Your task to perform on an android device: allow notifications from all sites in the chrome app Image 0: 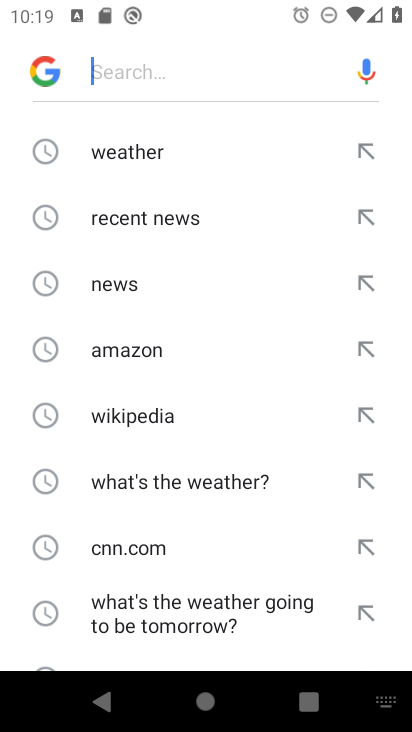
Step 0: press home button
Your task to perform on an android device: allow notifications from all sites in the chrome app Image 1: 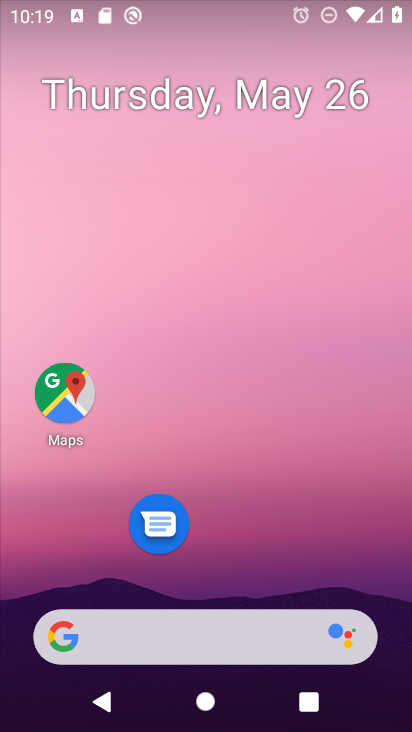
Step 1: drag from (266, 519) to (263, 53)
Your task to perform on an android device: allow notifications from all sites in the chrome app Image 2: 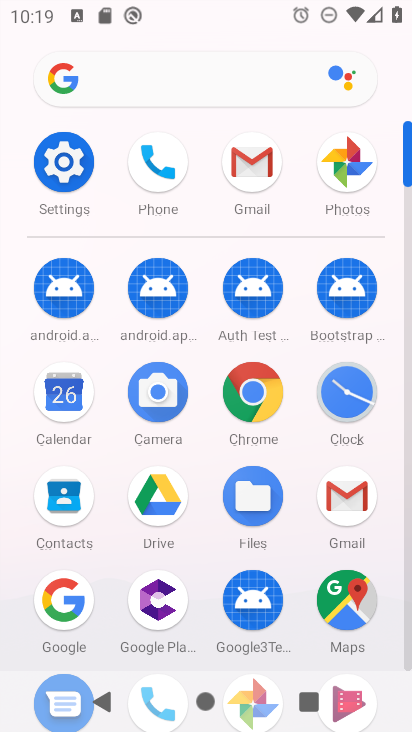
Step 2: click (249, 389)
Your task to perform on an android device: allow notifications from all sites in the chrome app Image 3: 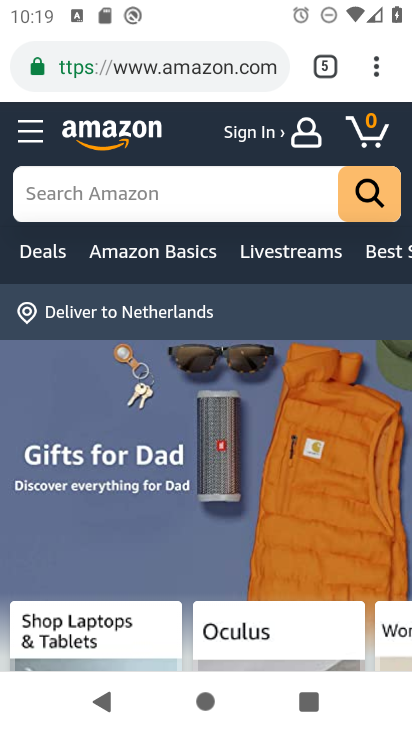
Step 3: press back button
Your task to perform on an android device: allow notifications from all sites in the chrome app Image 4: 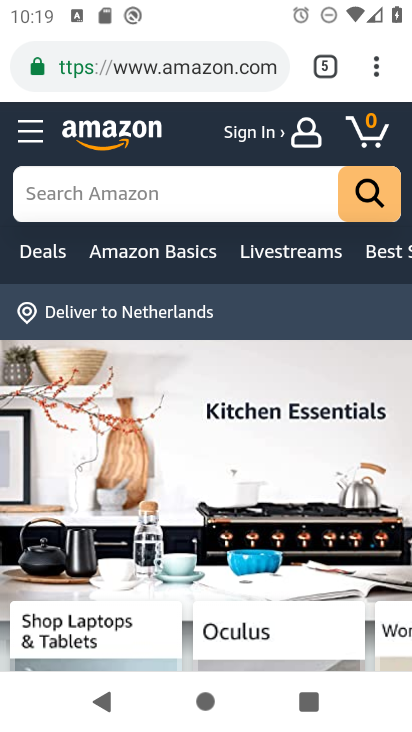
Step 4: click (371, 65)
Your task to perform on an android device: allow notifications from all sites in the chrome app Image 5: 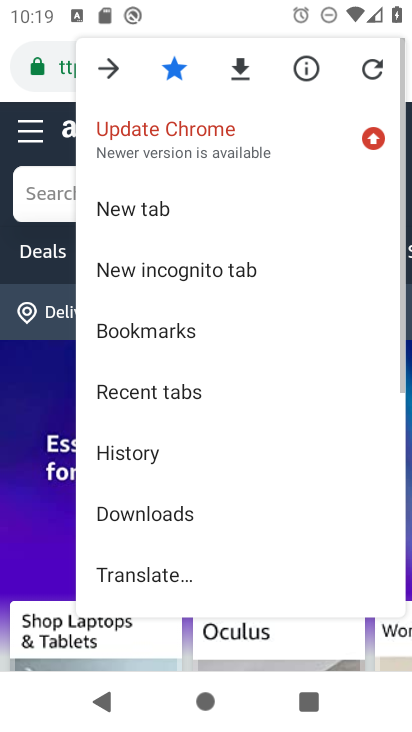
Step 5: drag from (267, 528) to (271, 108)
Your task to perform on an android device: allow notifications from all sites in the chrome app Image 6: 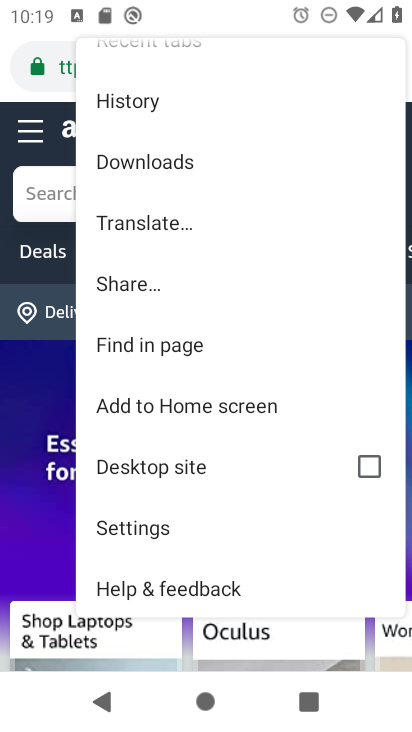
Step 6: click (181, 517)
Your task to perform on an android device: allow notifications from all sites in the chrome app Image 7: 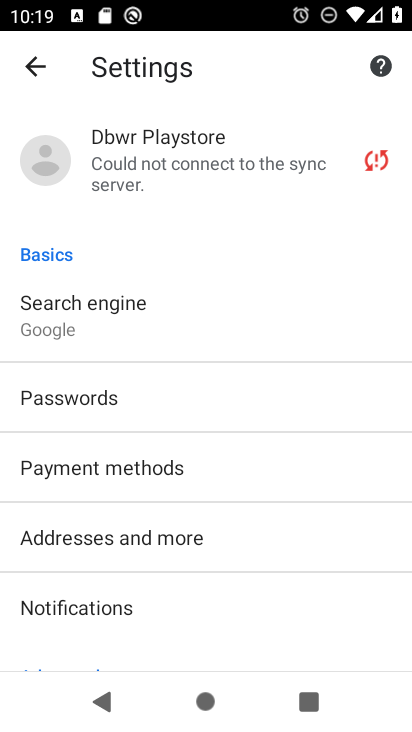
Step 7: drag from (240, 516) to (252, 345)
Your task to perform on an android device: allow notifications from all sites in the chrome app Image 8: 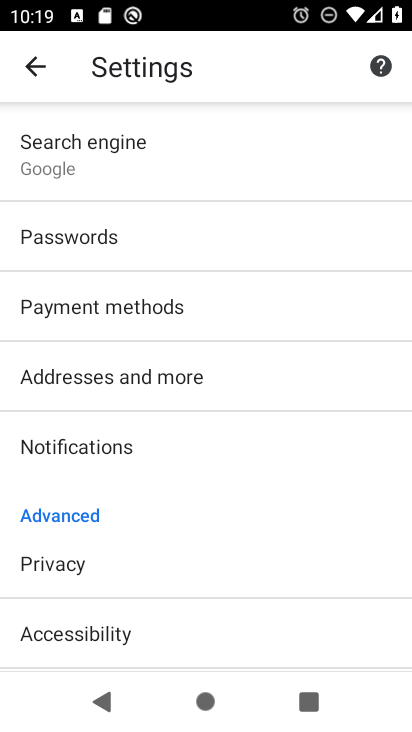
Step 8: click (242, 442)
Your task to perform on an android device: allow notifications from all sites in the chrome app Image 9: 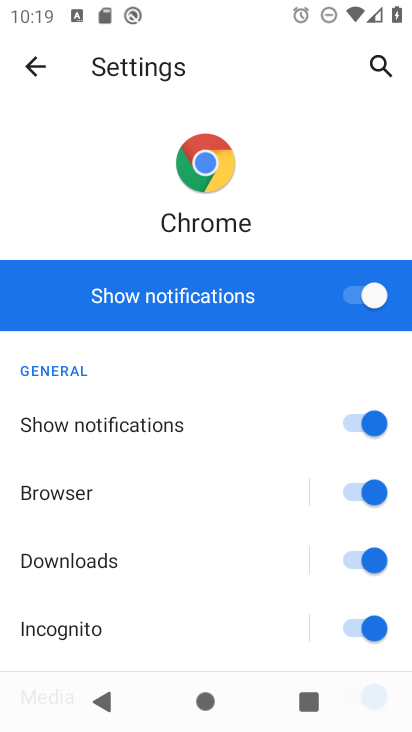
Step 9: task complete